Your task to perform on an android device: Open the stopwatch Image 0: 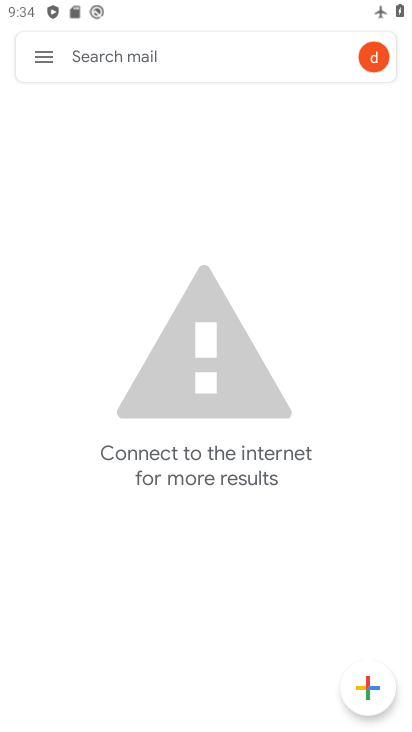
Step 0: press back button
Your task to perform on an android device: Open the stopwatch Image 1: 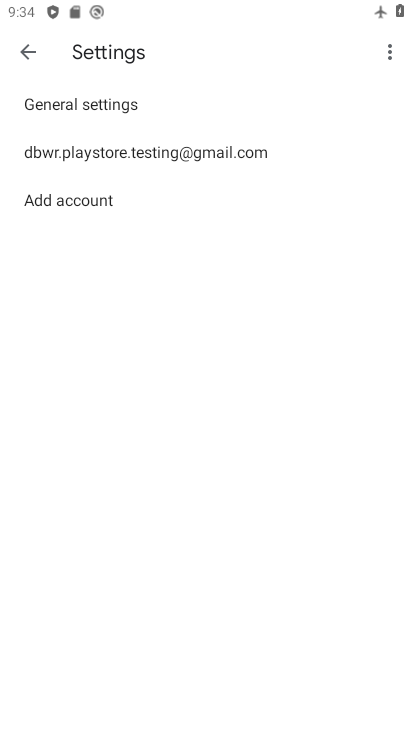
Step 1: press back button
Your task to perform on an android device: Open the stopwatch Image 2: 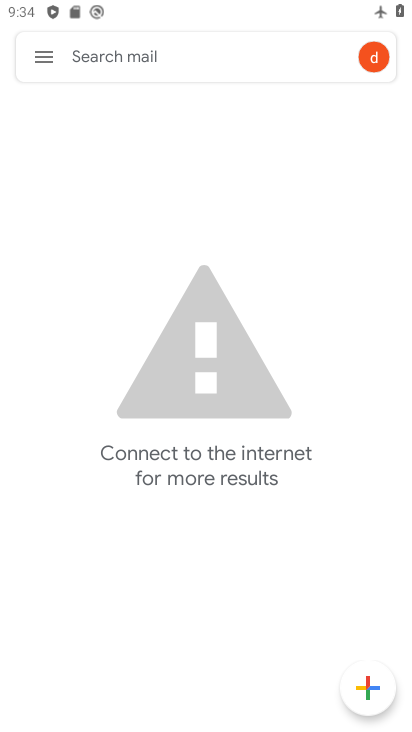
Step 2: press home button
Your task to perform on an android device: Open the stopwatch Image 3: 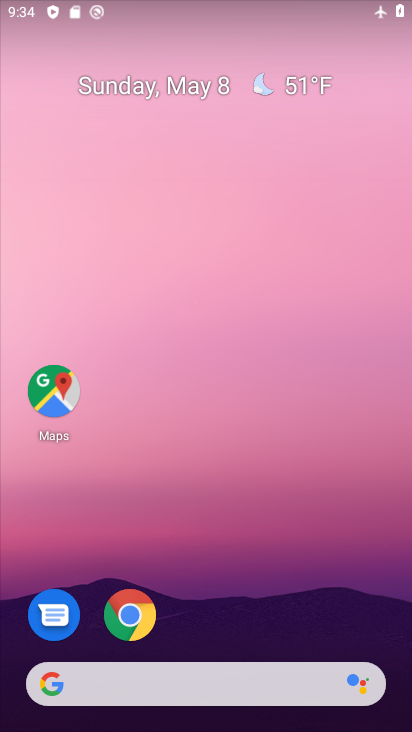
Step 3: drag from (224, 607) to (194, 201)
Your task to perform on an android device: Open the stopwatch Image 4: 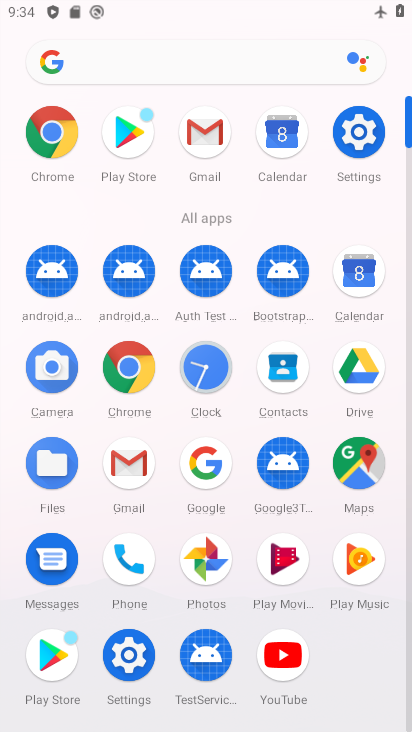
Step 4: click (203, 355)
Your task to perform on an android device: Open the stopwatch Image 5: 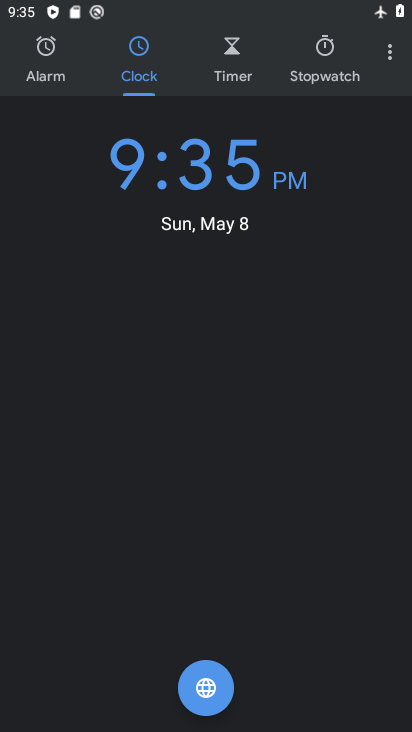
Step 5: click (311, 52)
Your task to perform on an android device: Open the stopwatch Image 6: 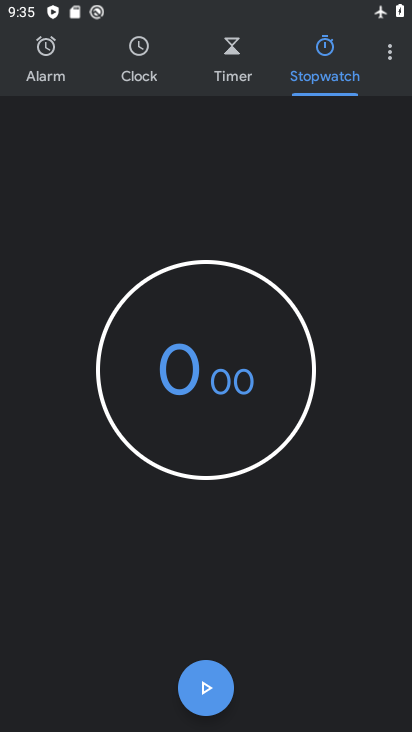
Step 6: click (213, 682)
Your task to perform on an android device: Open the stopwatch Image 7: 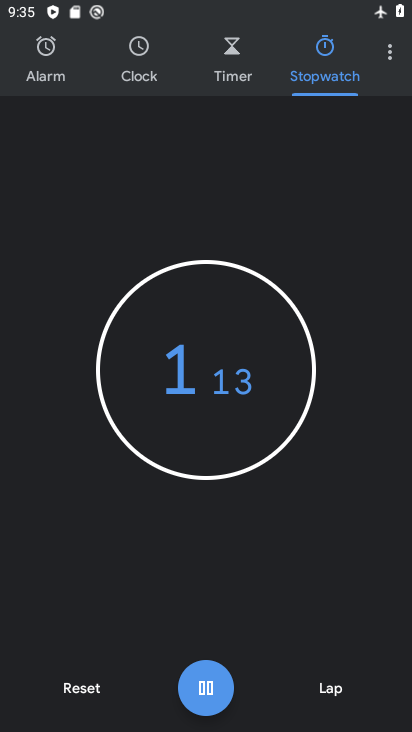
Step 7: task complete